Your task to perform on an android device: turn pop-ups off in chrome Image 0: 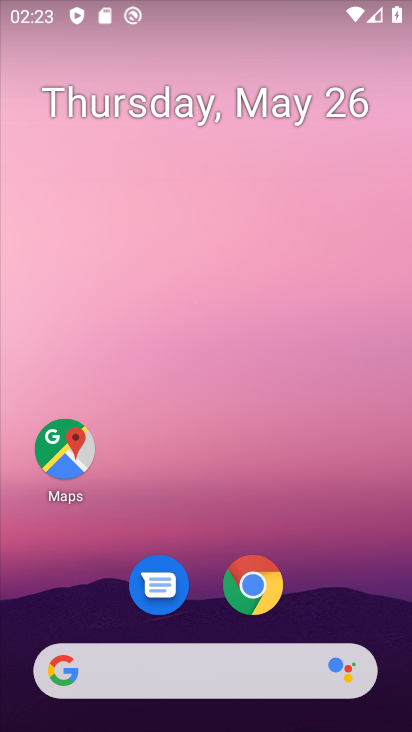
Step 0: click (257, 574)
Your task to perform on an android device: turn pop-ups off in chrome Image 1: 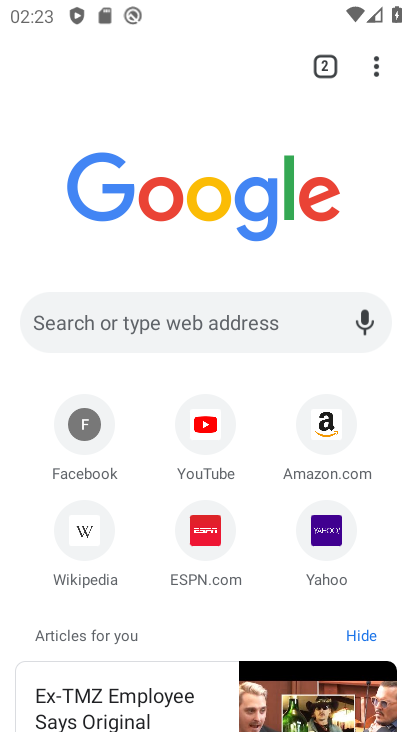
Step 1: click (374, 65)
Your task to perform on an android device: turn pop-ups off in chrome Image 2: 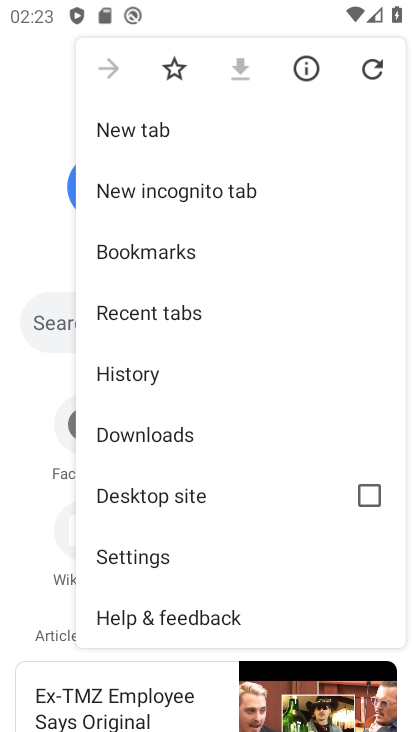
Step 2: click (158, 555)
Your task to perform on an android device: turn pop-ups off in chrome Image 3: 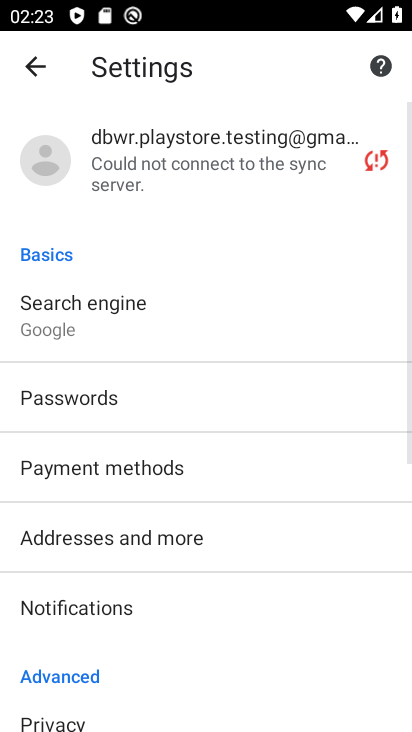
Step 3: drag from (176, 604) to (224, 248)
Your task to perform on an android device: turn pop-ups off in chrome Image 4: 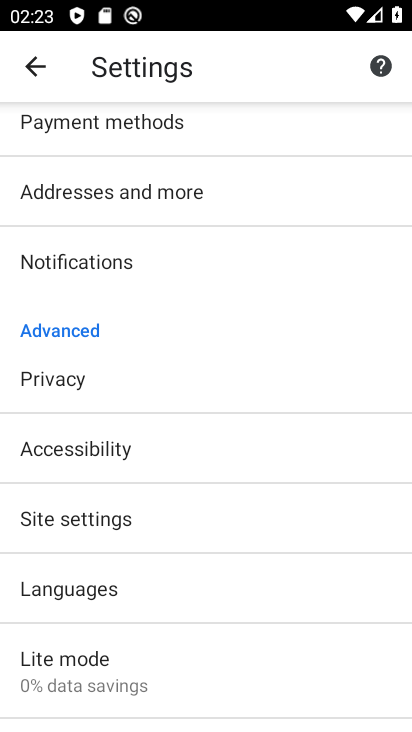
Step 4: click (158, 521)
Your task to perform on an android device: turn pop-ups off in chrome Image 5: 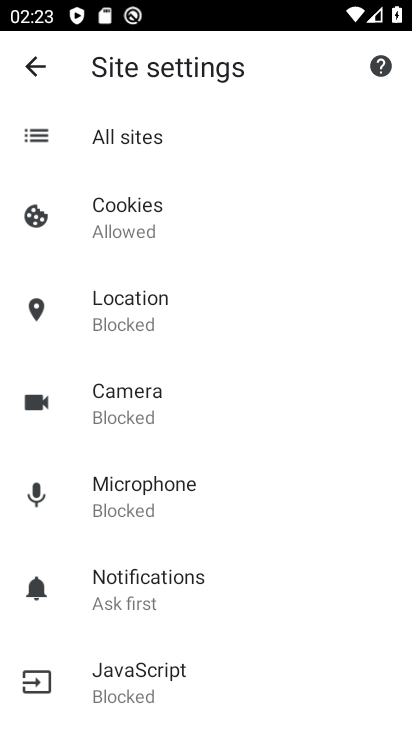
Step 5: drag from (243, 533) to (249, 304)
Your task to perform on an android device: turn pop-ups off in chrome Image 6: 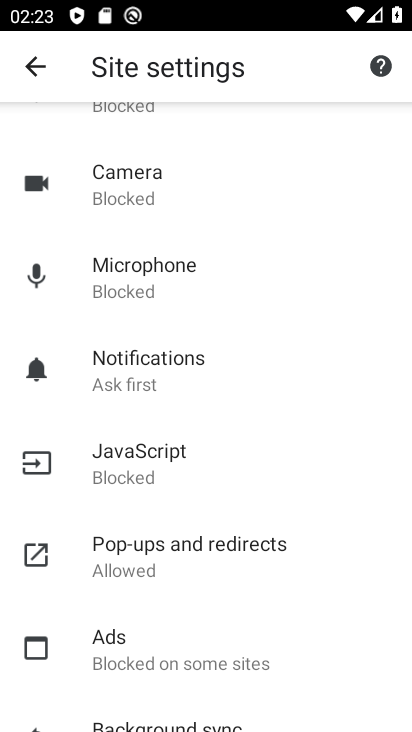
Step 6: click (220, 560)
Your task to perform on an android device: turn pop-ups off in chrome Image 7: 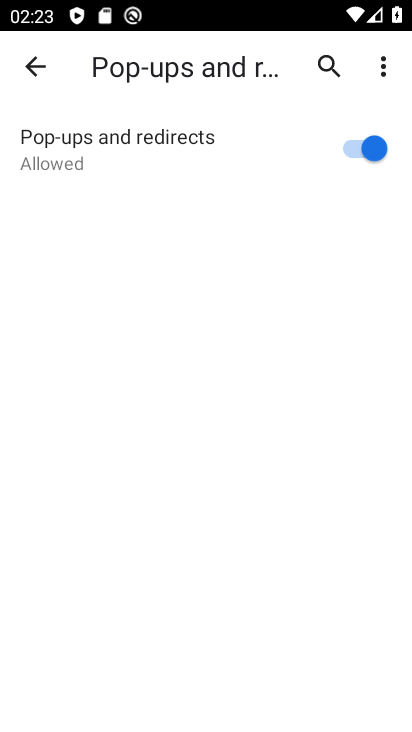
Step 7: click (363, 143)
Your task to perform on an android device: turn pop-ups off in chrome Image 8: 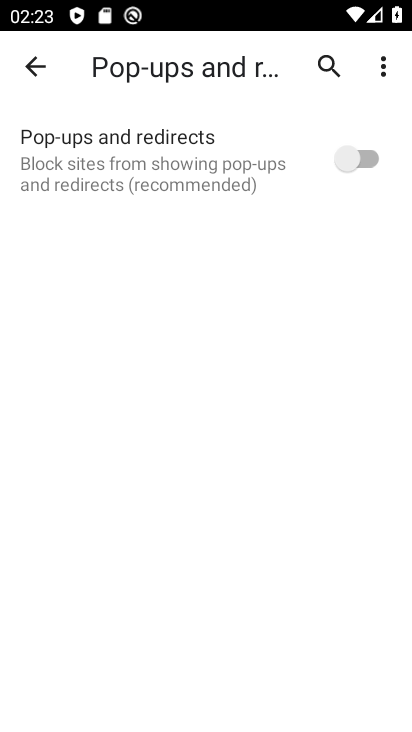
Step 8: task complete